Your task to perform on an android device: change the clock display to show seconds Image 0: 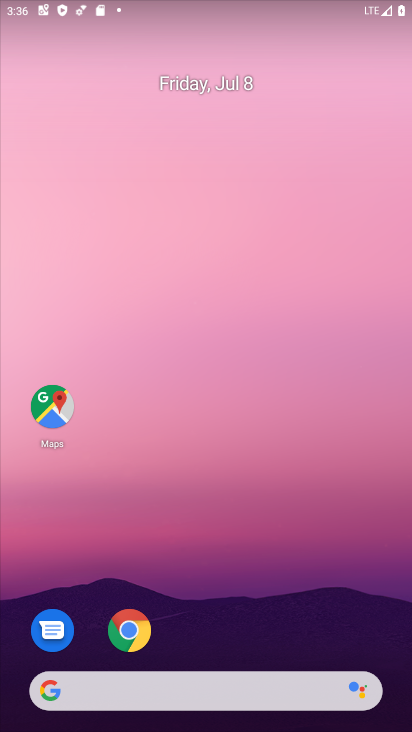
Step 0: drag from (213, 654) to (240, 92)
Your task to perform on an android device: change the clock display to show seconds Image 1: 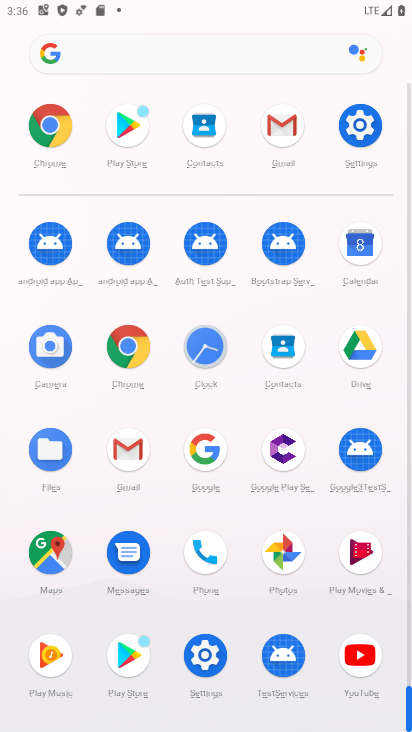
Step 1: click (206, 349)
Your task to perform on an android device: change the clock display to show seconds Image 2: 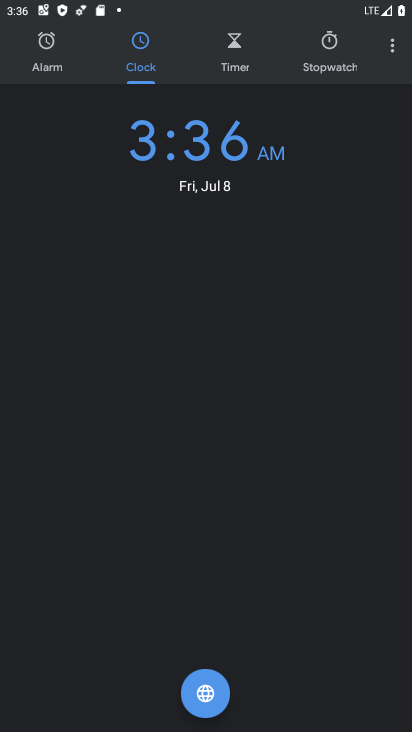
Step 2: click (392, 49)
Your task to perform on an android device: change the clock display to show seconds Image 3: 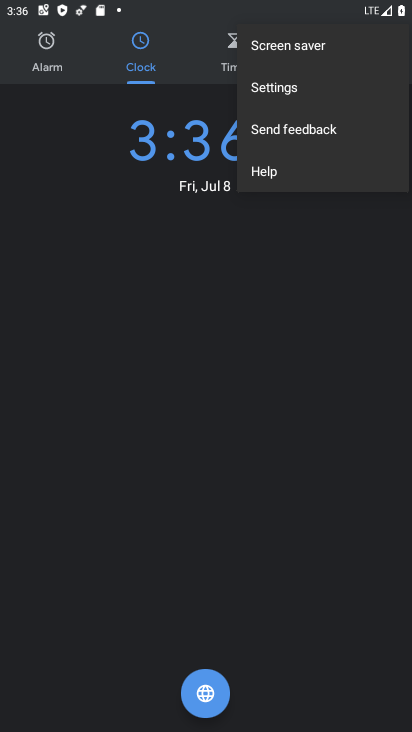
Step 3: click (297, 88)
Your task to perform on an android device: change the clock display to show seconds Image 4: 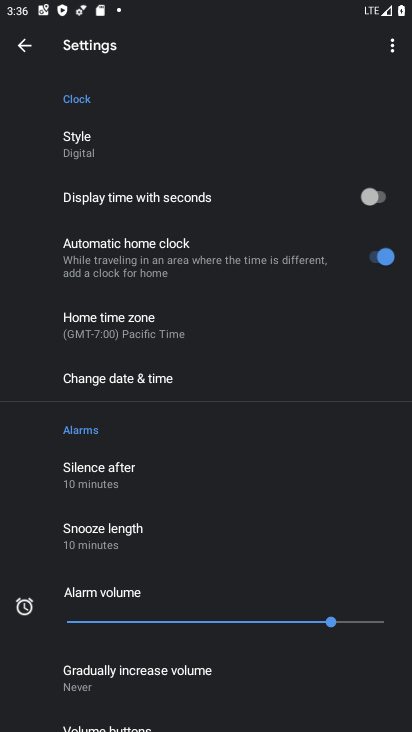
Step 4: click (370, 202)
Your task to perform on an android device: change the clock display to show seconds Image 5: 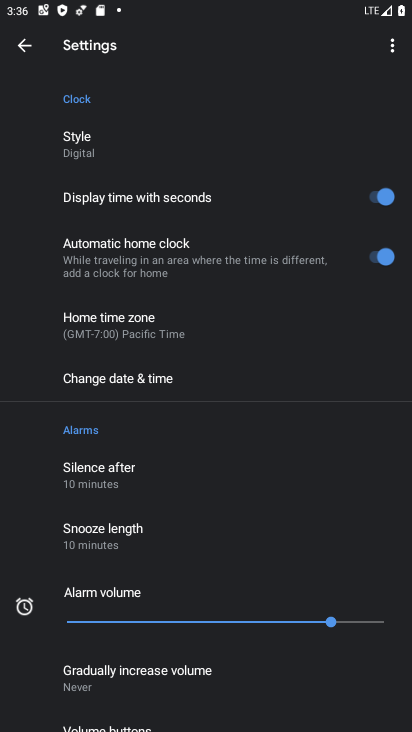
Step 5: task complete